Your task to perform on an android device: change notification settings in the gmail app Image 0: 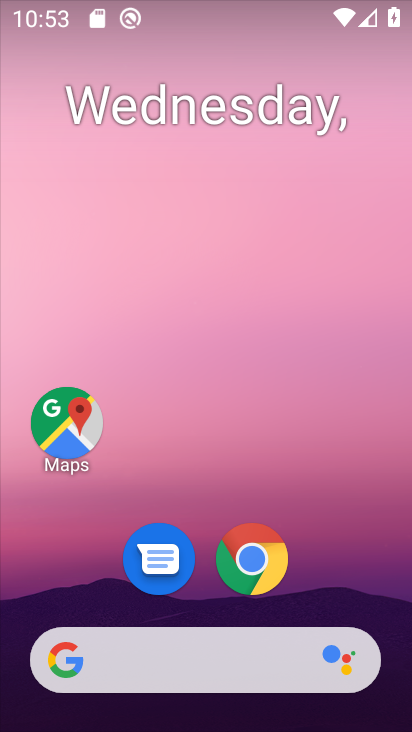
Step 0: press home button
Your task to perform on an android device: change notification settings in the gmail app Image 1: 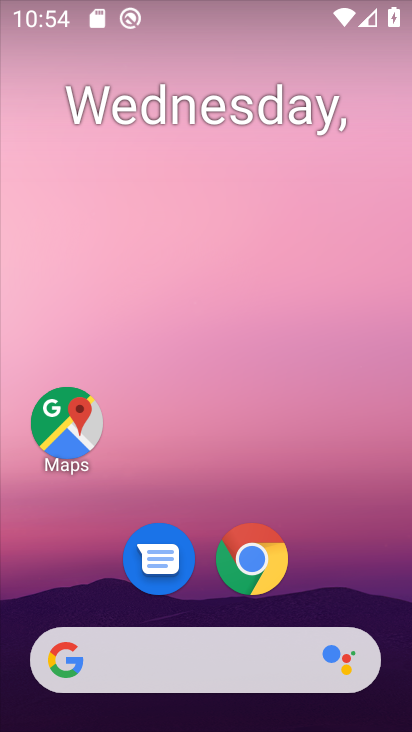
Step 1: drag from (342, 709) to (374, 209)
Your task to perform on an android device: change notification settings in the gmail app Image 2: 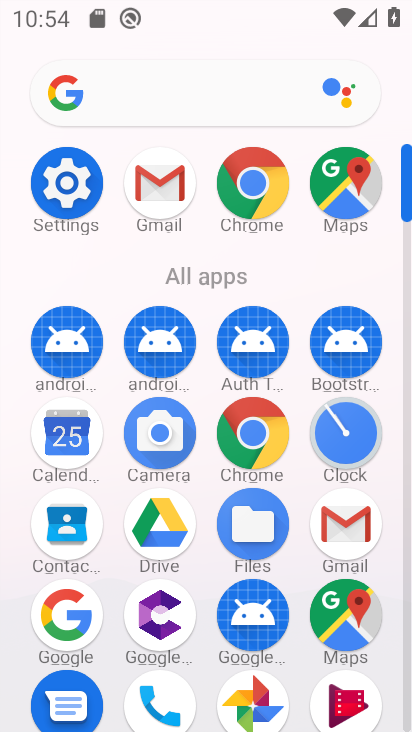
Step 2: click (172, 177)
Your task to perform on an android device: change notification settings in the gmail app Image 3: 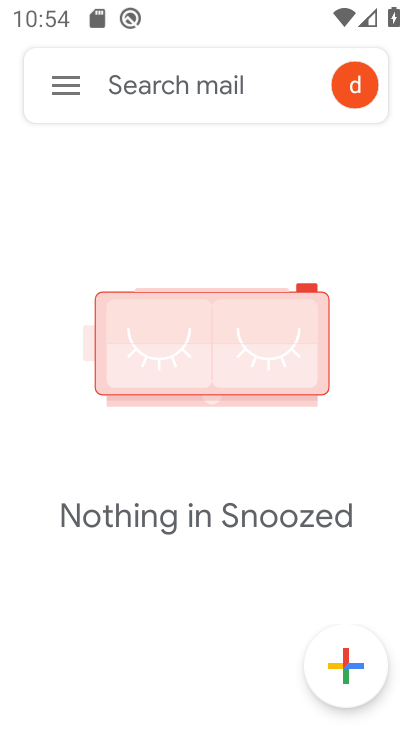
Step 3: click (55, 76)
Your task to perform on an android device: change notification settings in the gmail app Image 4: 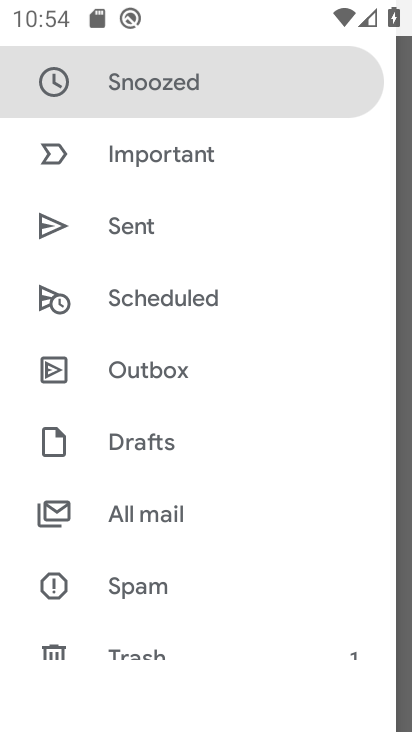
Step 4: drag from (105, 559) to (165, 272)
Your task to perform on an android device: change notification settings in the gmail app Image 5: 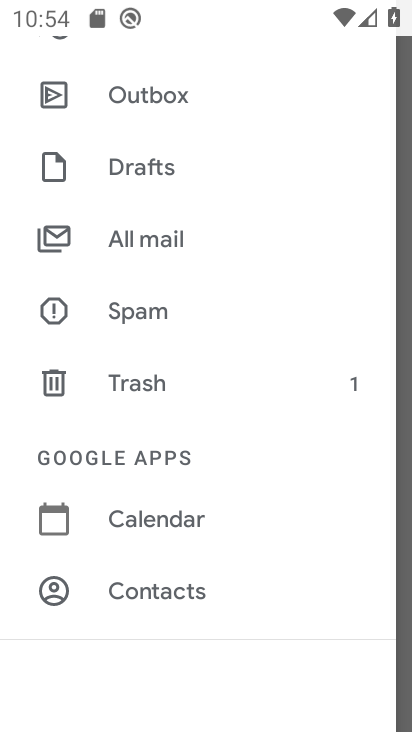
Step 5: drag from (159, 596) to (203, 416)
Your task to perform on an android device: change notification settings in the gmail app Image 6: 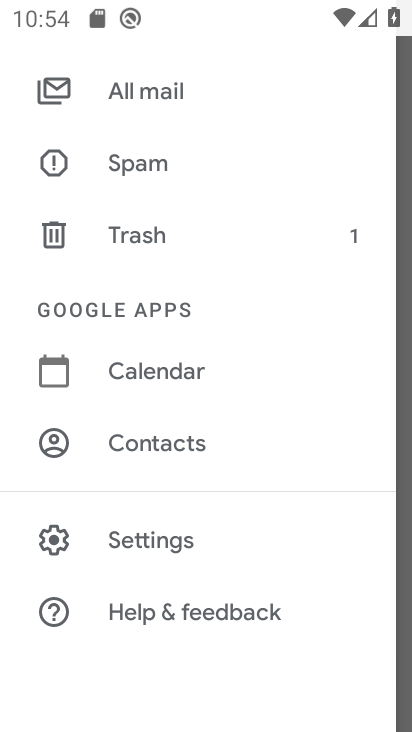
Step 6: click (179, 539)
Your task to perform on an android device: change notification settings in the gmail app Image 7: 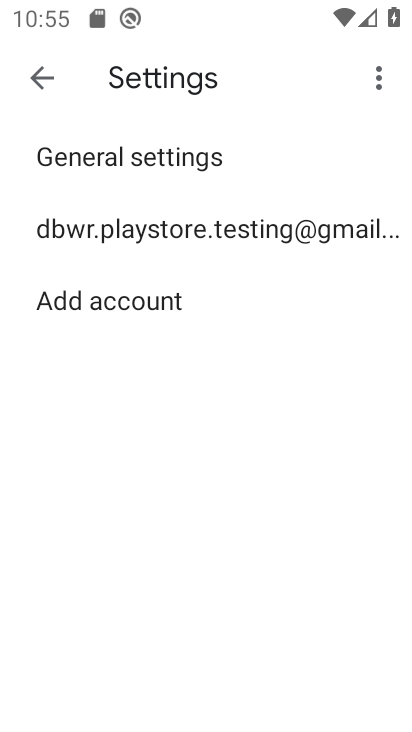
Step 7: click (156, 237)
Your task to perform on an android device: change notification settings in the gmail app Image 8: 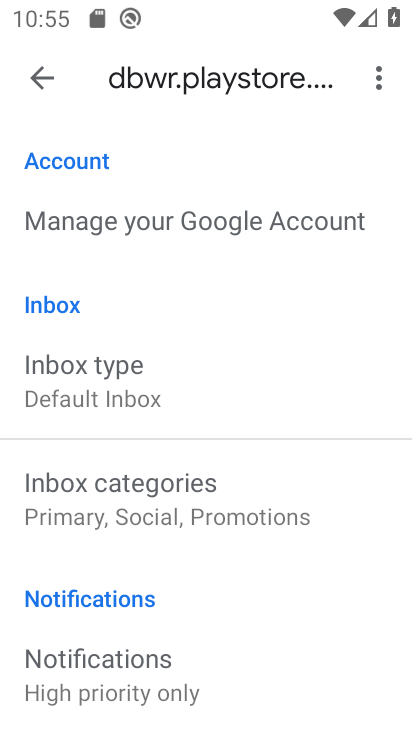
Step 8: click (132, 659)
Your task to perform on an android device: change notification settings in the gmail app Image 9: 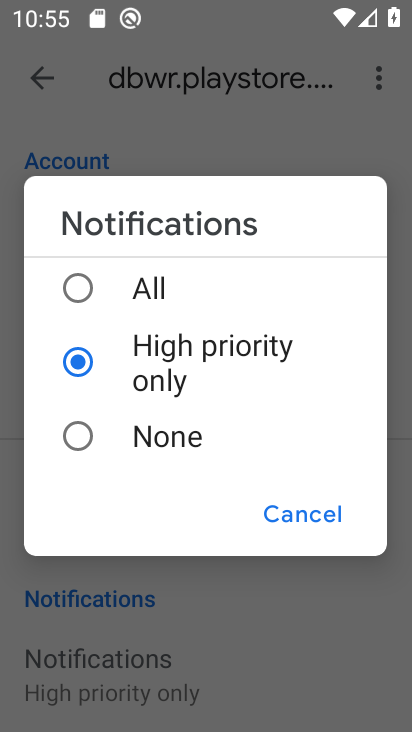
Step 9: click (282, 504)
Your task to perform on an android device: change notification settings in the gmail app Image 10: 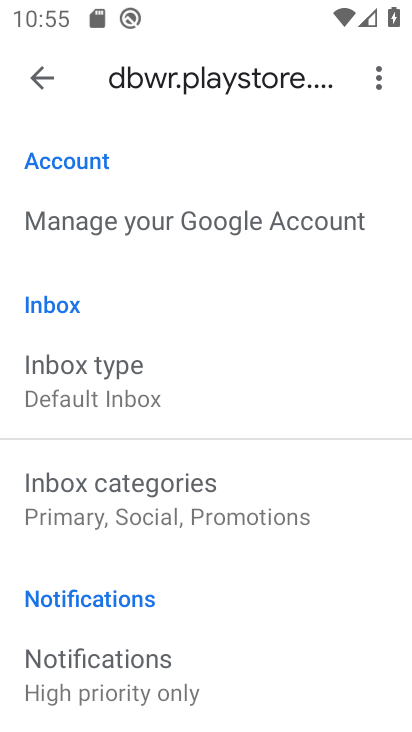
Step 10: task complete